Your task to perform on an android device: What's the weather going to be this weekend? Image 0: 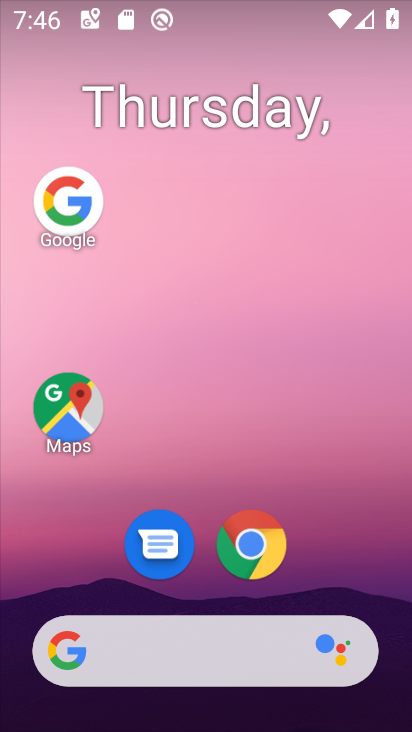
Step 0: drag from (262, 660) to (284, 173)
Your task to perform on an android device: What's the weather going to be this weekend? Image 1: 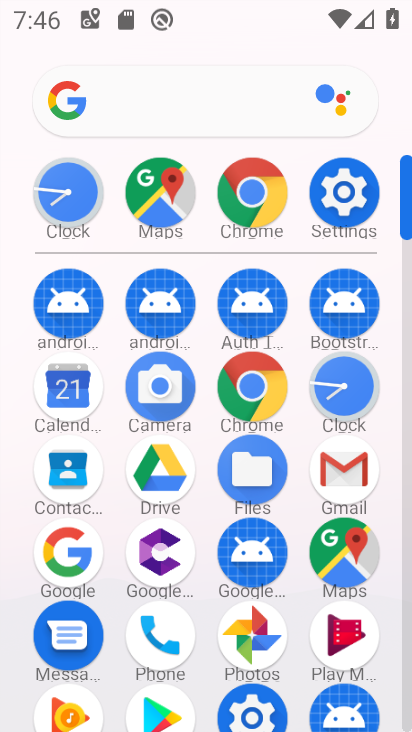
Step 1: click (159, 114)
Your task to perform on an android device: What's the weather going to be this weekend? Image 2: 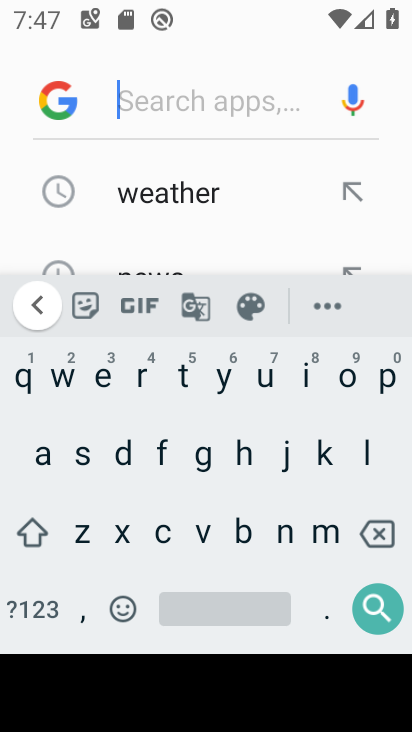
Step 2: click (173, 201)
Your task to perform on an android device: What's the weather going to be this weekend? Image 3: 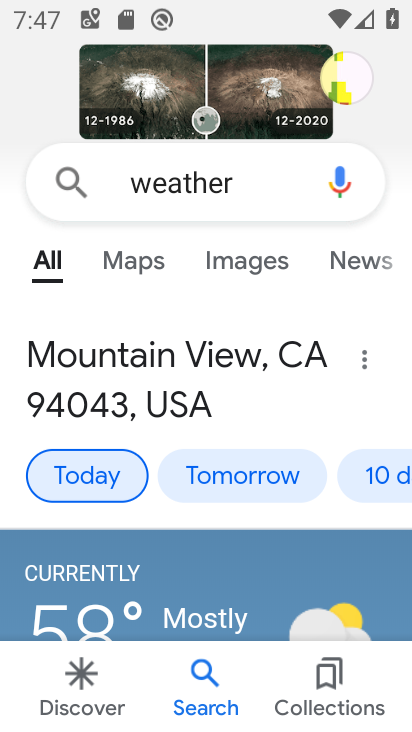
Step 3: click (375, 481)
Your task to perform on an android device: What's the weather going to be this weekend? Image 4: 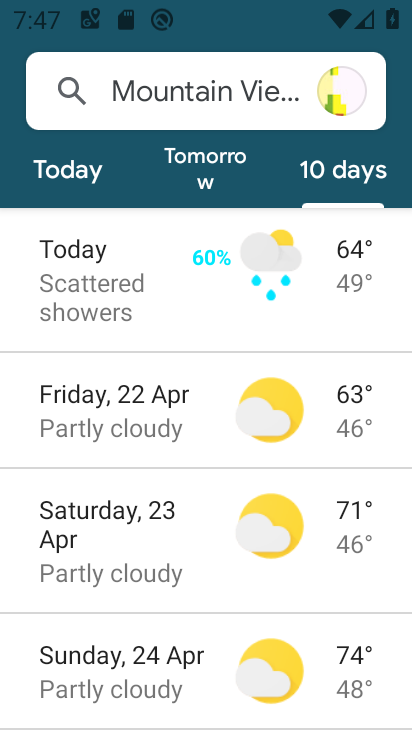
Step 4: task complete